Your task to perform on an android device: Go to CNN.com Image 0: 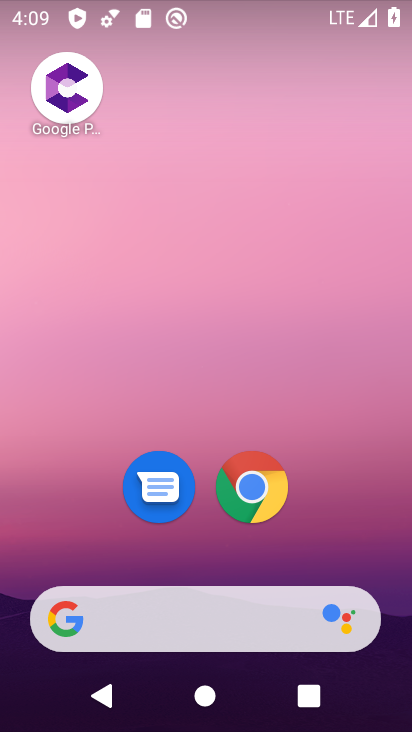
Step 0: click (250, 486)
Your task to perform on an android device: Go to CNN.com Image 1: 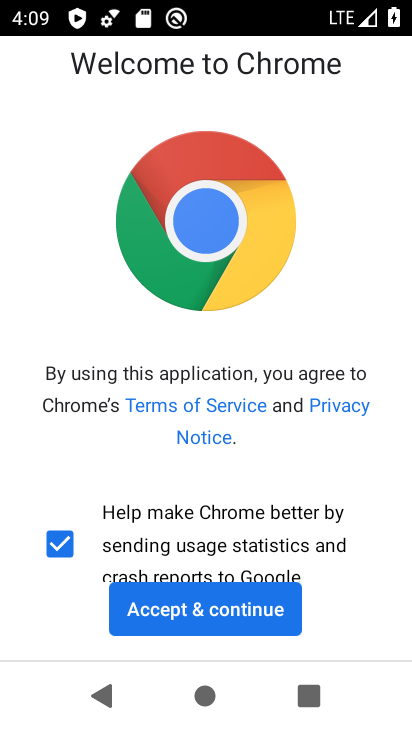
Step 1: click (188, 599)
Your task to perform on an android device: Go to CNN.com Image 2: 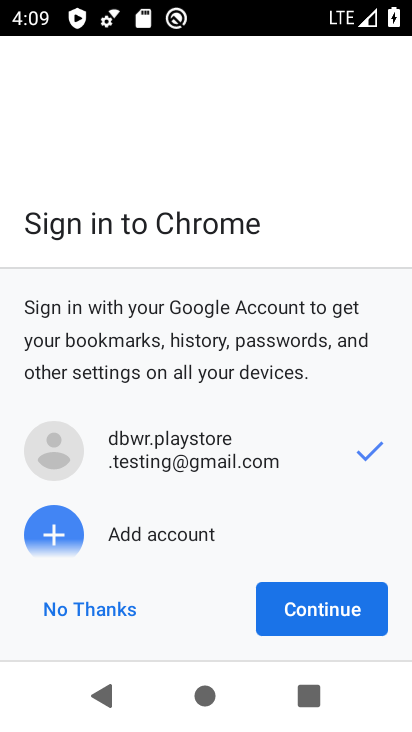
Step 2: click (327, 604)
Your task to perform on an android device: Go to CNN.com Image 3: 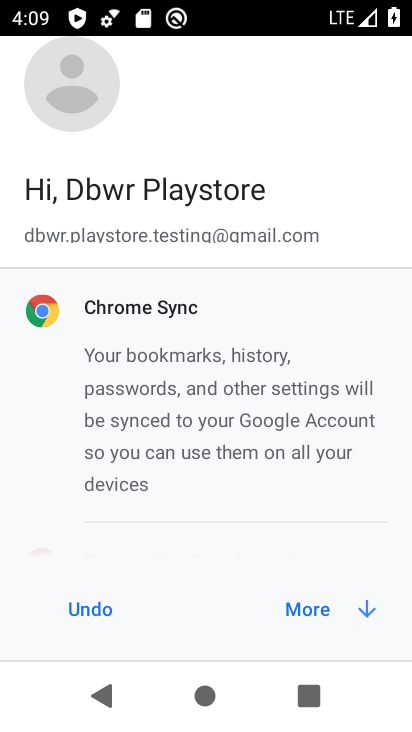
Step 3: click (327, 604)
Your task to perform on an android device: Go to CNN.com Image 4: 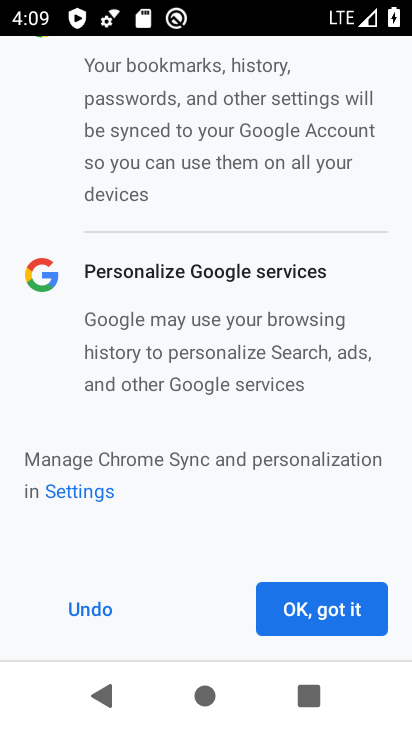
Step 4: click (327, 604)
Your task to perform on an android device: Go to CNN.com Image 5: 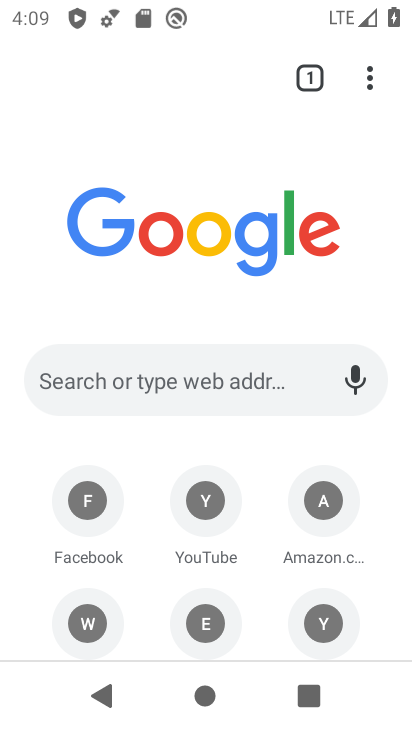
Step 5: click (136, 381)
Your task to perform on an android device: Go to CNN.com Image 6: 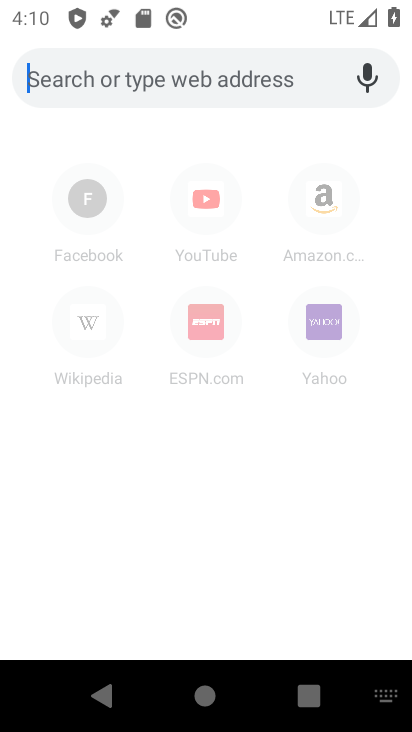
Step 6: type "cnn"
Your task to perform on an android device: Go to CNN.com Image 7: 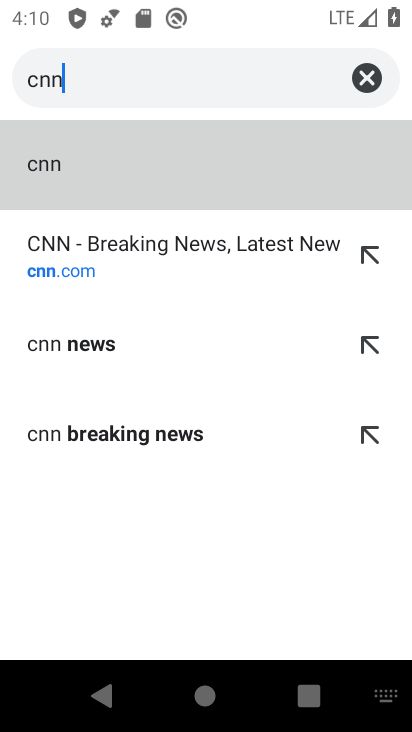
Step 7: click (68, 243)
Your task to perform on an android device: Go to CNN.com Image 8: 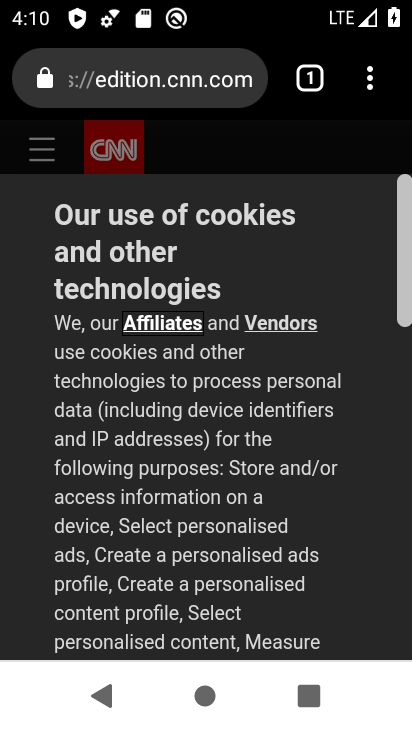
Step 8: task complete